Your task to perform on an android device: visit the assistant section in the google photos Image 0: 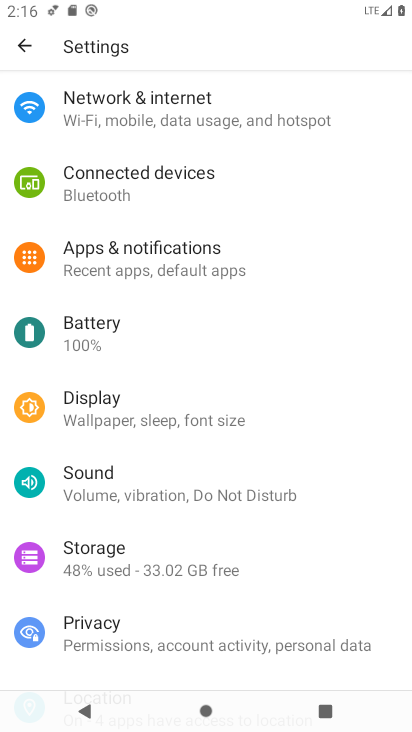
Step 0: press home button
Your task to perform on an android device: visit the assistant section in the google photos Image 1: 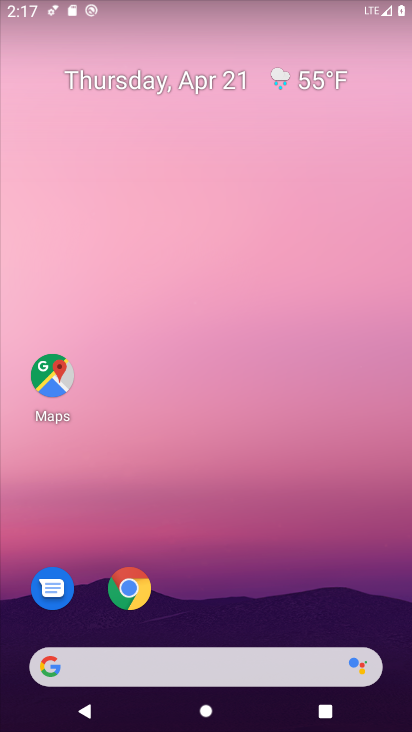
Step 1: drag from (184, 611) to (307, 113)
Your task to perform on an android device: visit the assistant section in the google photos Image 2: 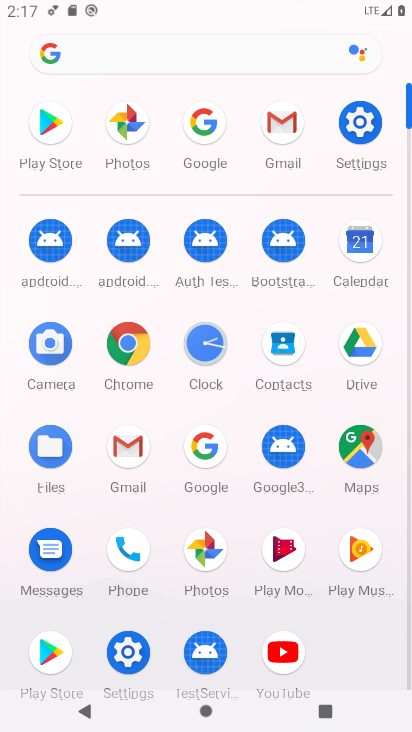
Step 2: click (122, 115)
Your task to perform on an android device: visit the assistant section in the google photos Image 3: 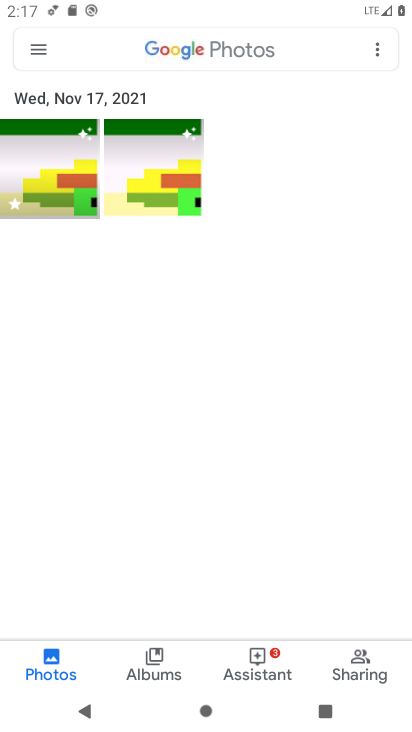
Step 3: click (269, 655)
Your task to perform on an android device: visit the assistant section in the google photos Image 4: 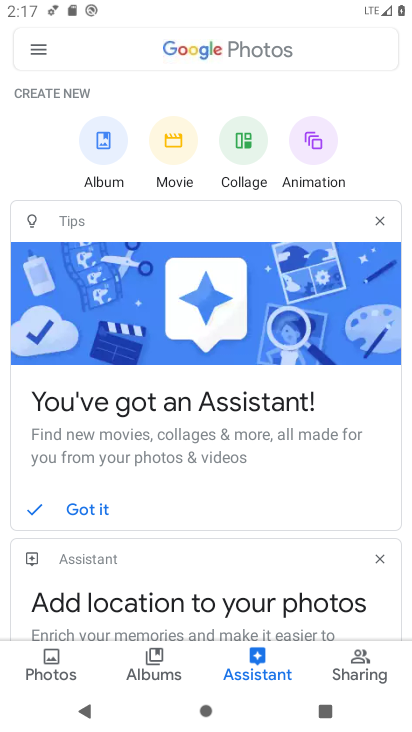
Step 4: task complete